Your task to perform on an android device: add a contact Image 0: 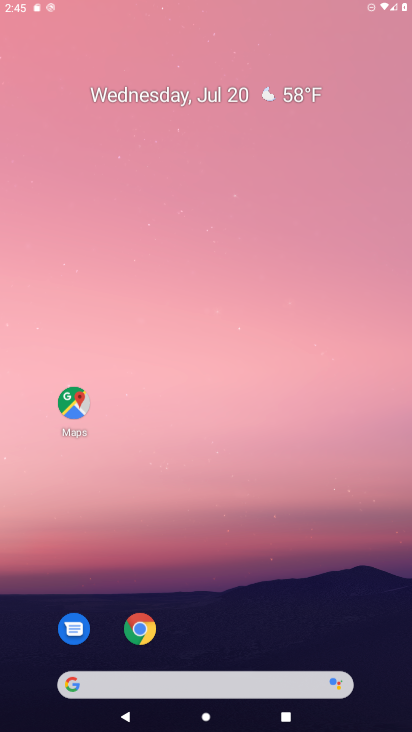
Step 0: press home button
Your task to perform on an android device: add a contact Image 1: 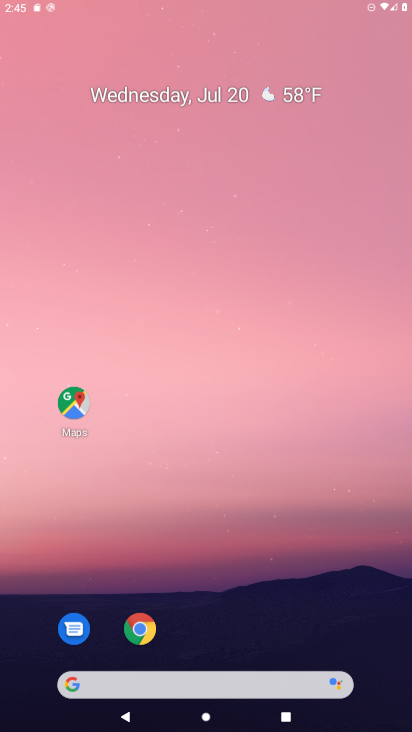
Step 1: click (274, 115)
Your task to perform on an android device: add a contact Image 2: 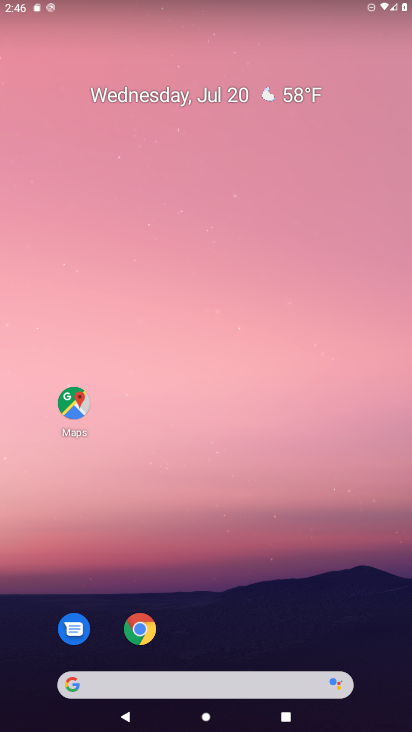
Step 2: drag from (363, 682) to (364, 191)
Your task to perform on an android device: add a contact Image 3: 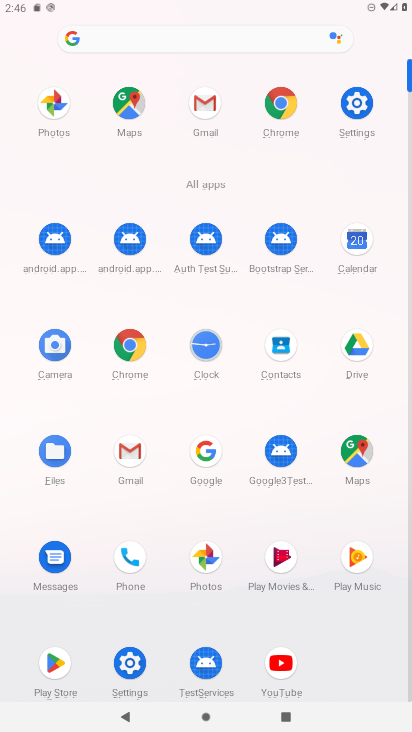
Step 3: click (274, 368)
Your task to perform on an android device: add a contact Image 4: 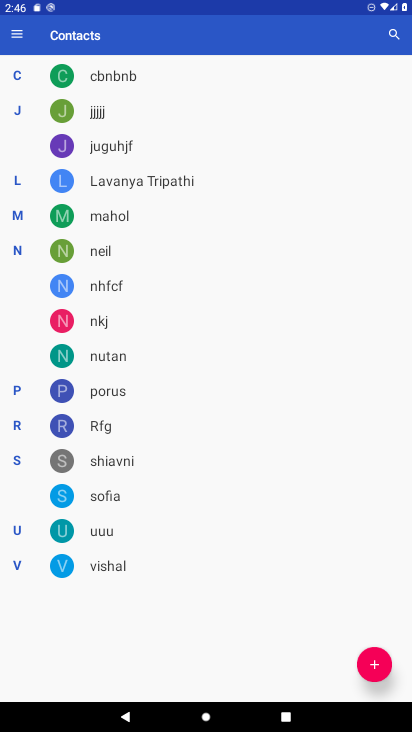
Step 4: click (379, 668)
Your task to perform on an android device: add a contact Image 5: 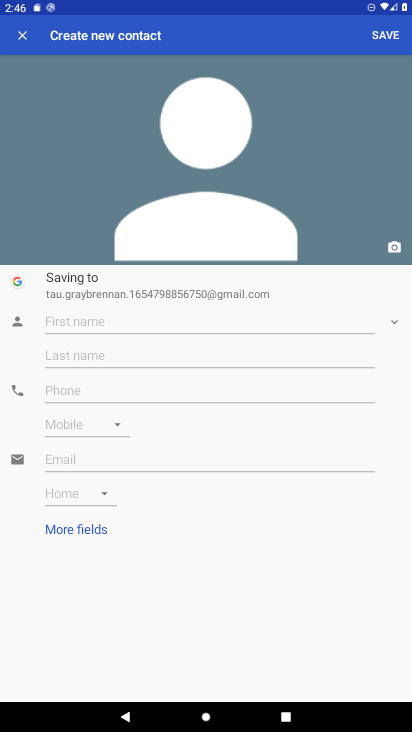
Step 5: click (179, 321)
Your task to perform on an android device: add a contact Image 6: 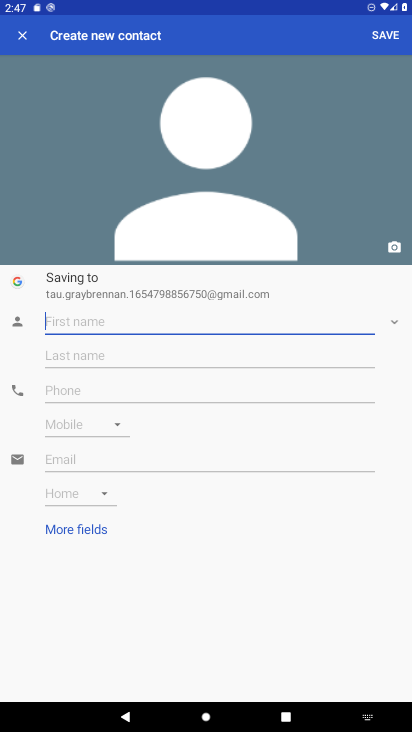
Step 6: type "bfdyrewekhf"
Your task to perform on an android device: add a contact Image 7: 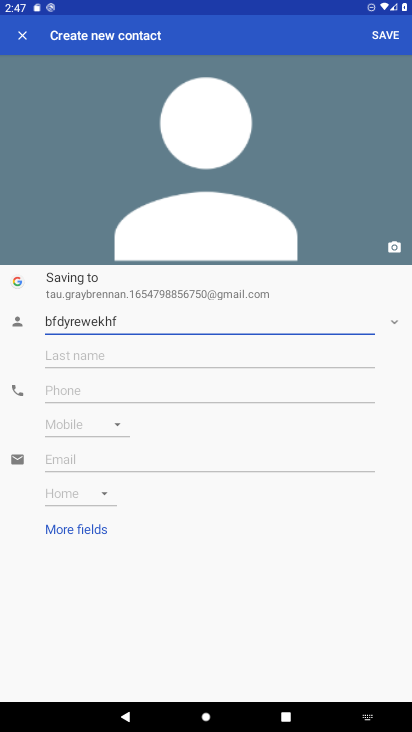
Step 7: click (193, 392)
Your task to perform on an android device: add a contact Image 8: 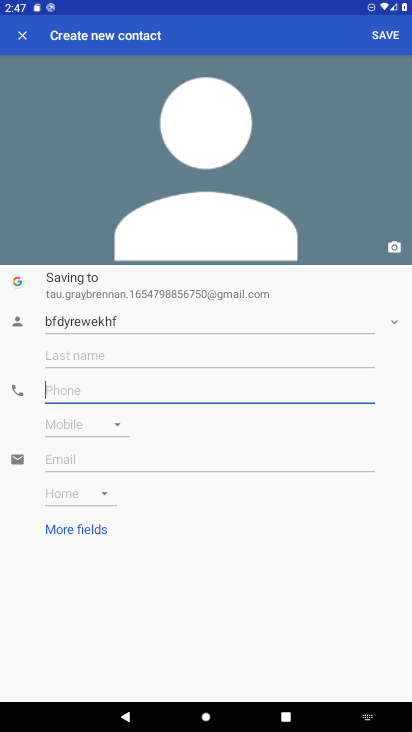
Step 8: type "36775"
Your task to perform on an android device: add a contact Image 9: 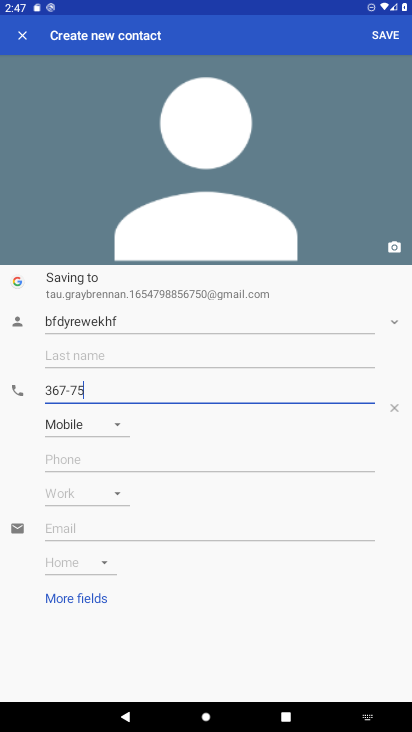
Step 9: click (400, 26)
Your task to perform on an android device: add a contact Image 10: 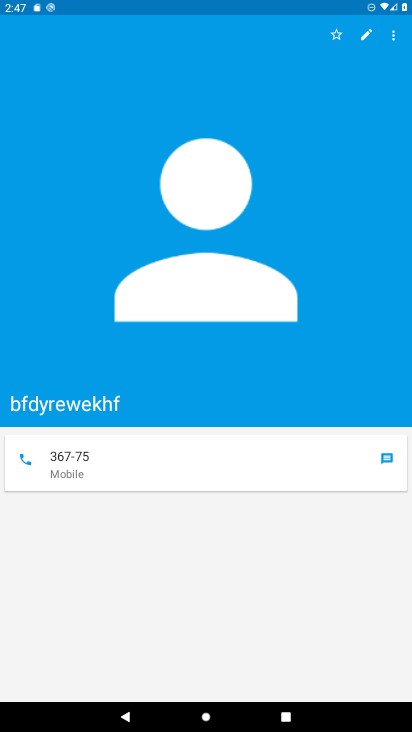
Step 10: task complete